Your task to perform on an android device: Turn on the flashlight Image 0: 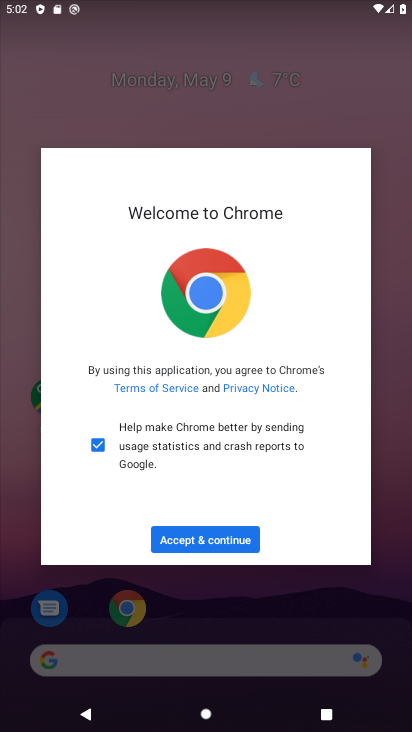
Step 0: press home button
Your task to perform on an android device: Turn on the flashlight Image 1: 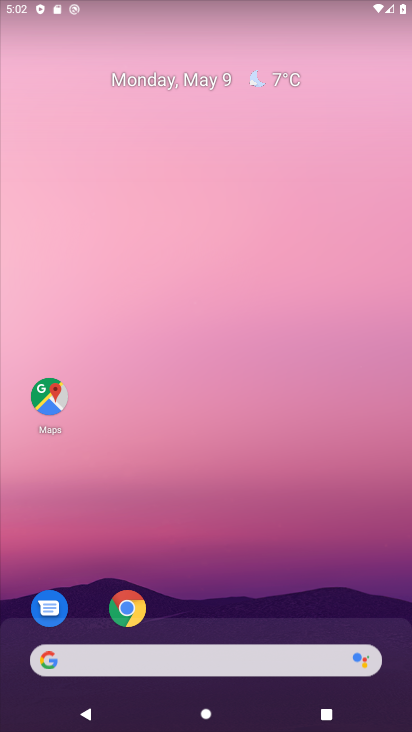
Step 1: drag from (255, 391) to (272, 57)
Your task to perform on an android device: Turn on the flashlight Image 2: 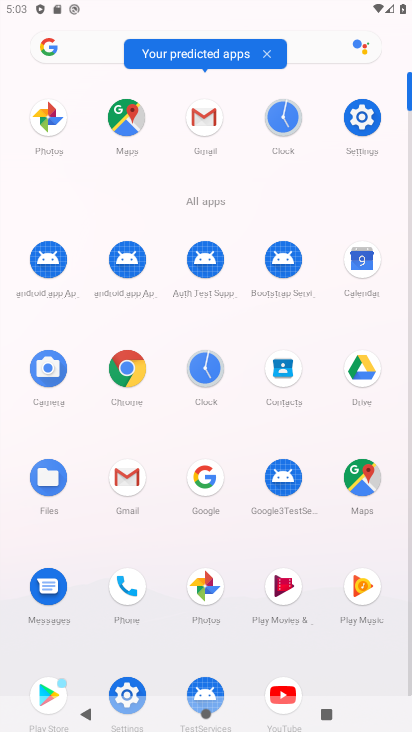
Step 2: click (366, 132)
Your task to perform on an android device: Turn on the flashlight Image 3: 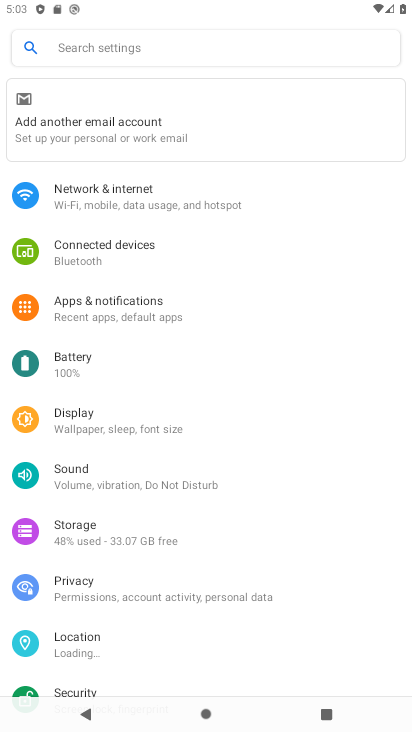
Step 3: task complete